Your task to perform on an android device: Go to CNN.com Image 0: 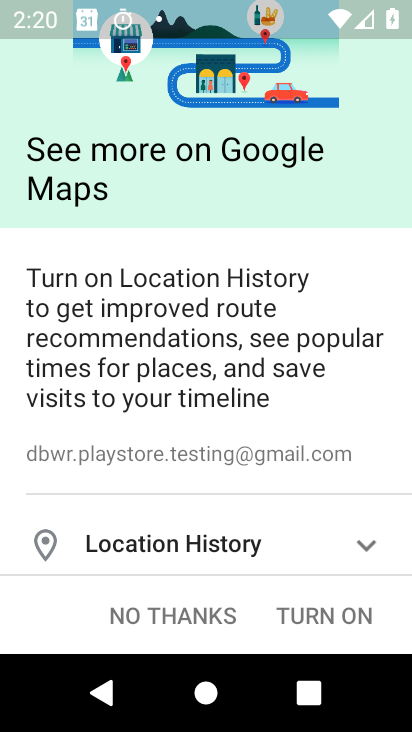
Step 0: press home button
Your task to perform on an android device: Go to CNN.com Image 1: 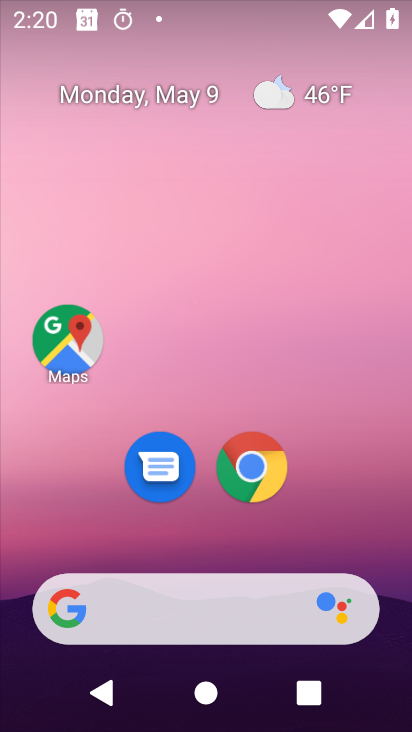
Step 1: drag from (320, 541) to (286, 137)
Your task to perform on an android device: Go to CNN.com Image 2: 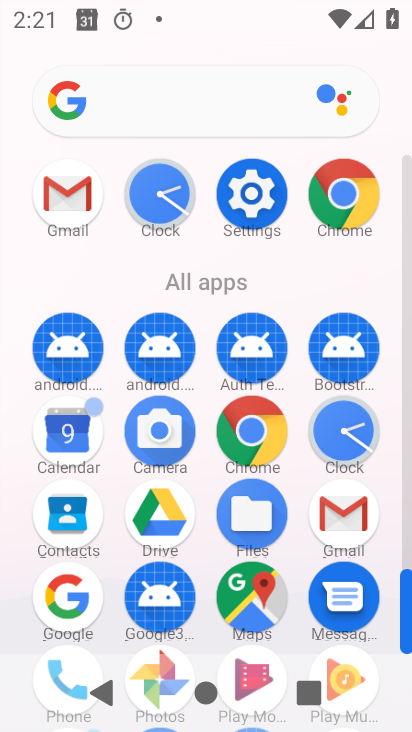
Step 2: click (249, 435)
Your task to perform on an android device: Go to CNN.com Image 3: 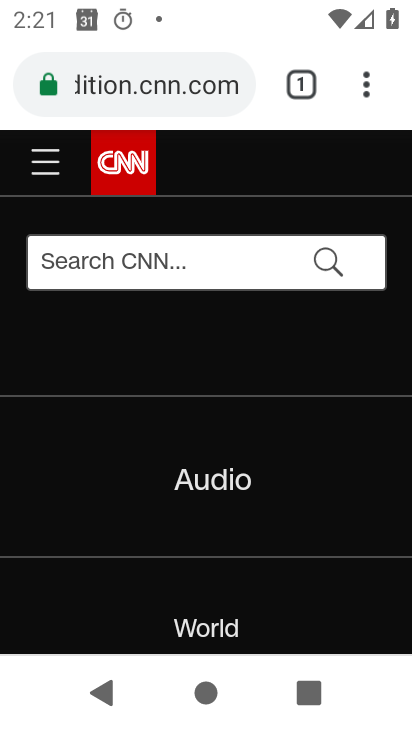
Step 3: task complete